Your task to perform on an android device: create a new album in the google photos Image 0: 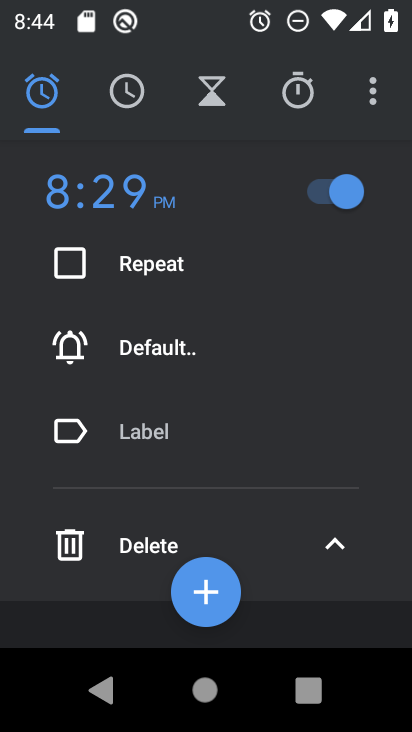
Step 0: click (17, 471)
Your task to perform on an android device: create a new album in the google photos Image 1: 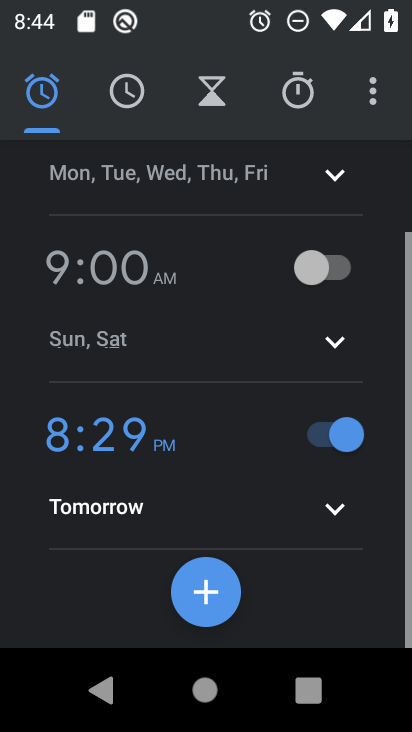
Step 1: press home button
Your task to perform on an android device: create a new album in the google photos Image 2: 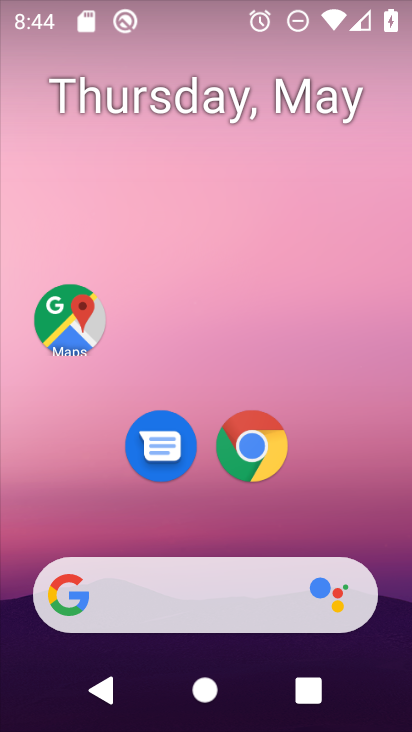
Step 2: drag from (339, 427) to (350, 140)
Your task to perform on an android device: create a new album in the google photos Image 3: 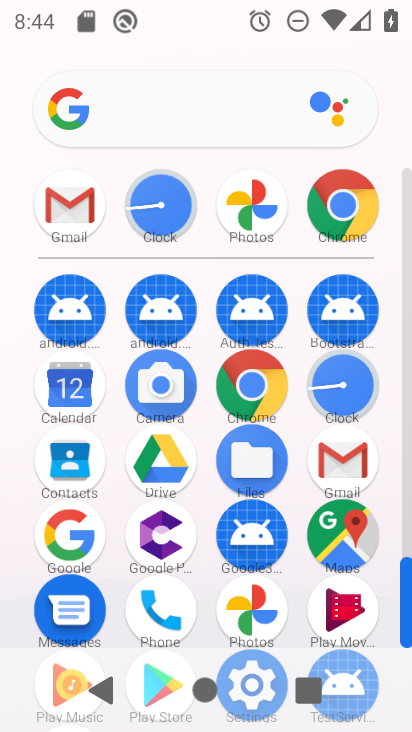
Step 3: click (240, 617)
Your task to perform on an android device: create a new album in the google photos Image 4: 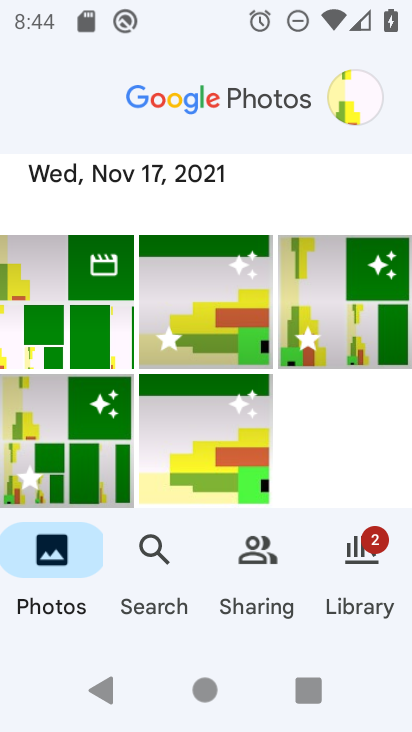
Step 4: click (348, 559)
Your task to perform on an android device: create a new album in the google photos Image 5: 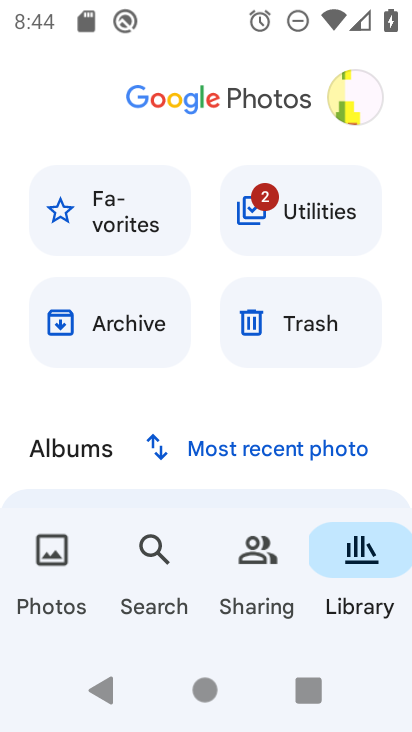
Step 5: drag from (253, 386) to (297, 182)
Your task to perform on an android device: create a new album in the google photos Image 6: 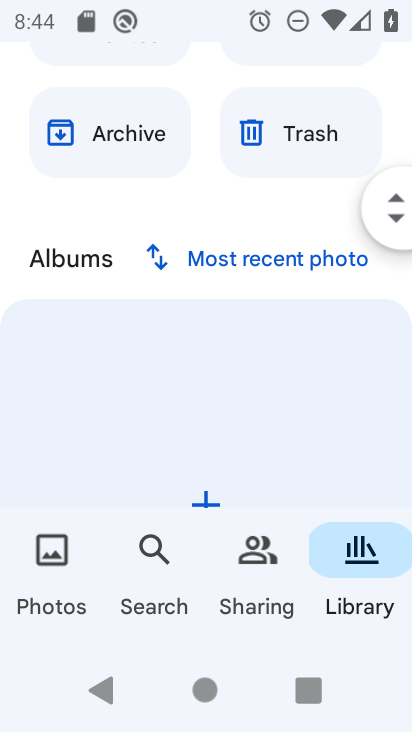
Step 6: click (211, 494)
Your task to perform on an android device: create a new album in the google photos Image 7: 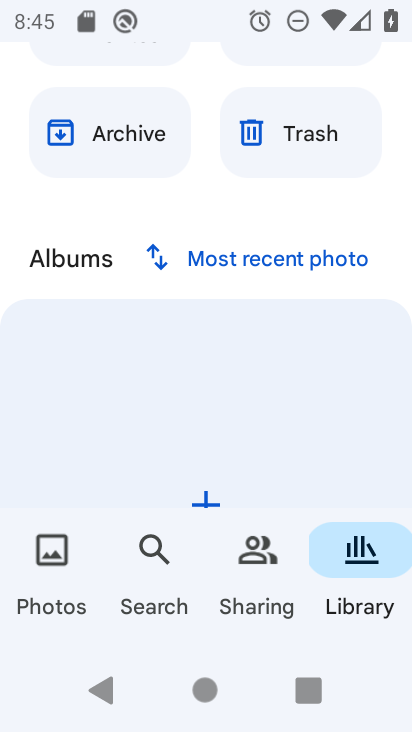
Step 7: drag from (233, 485) to (242, 271)
Your task to perform on an android device: create a new album in the google photos Image 8: 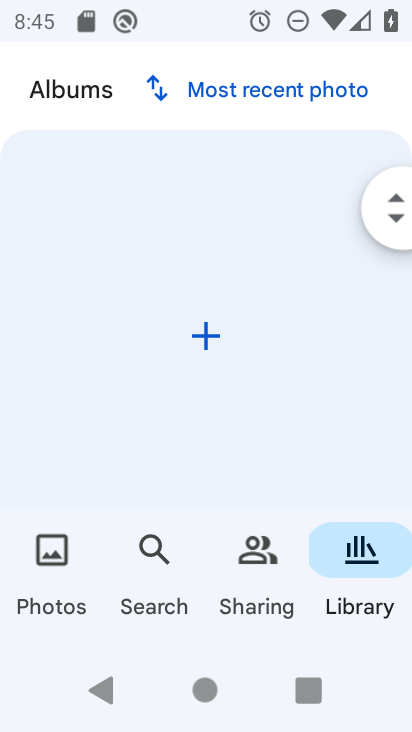
Step 8: click (198, 346)
Your task to perform on an android device: create a new album in the google photos Image 9: 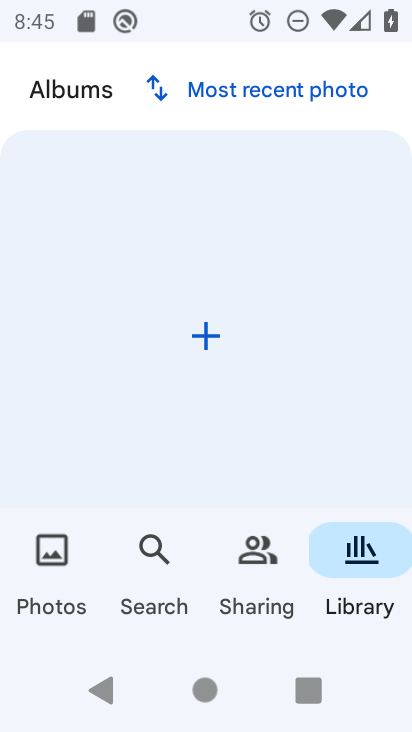
Step 9: click (205, 330)
Your task to perform on an android device: create a new album in the google photos Image 10: 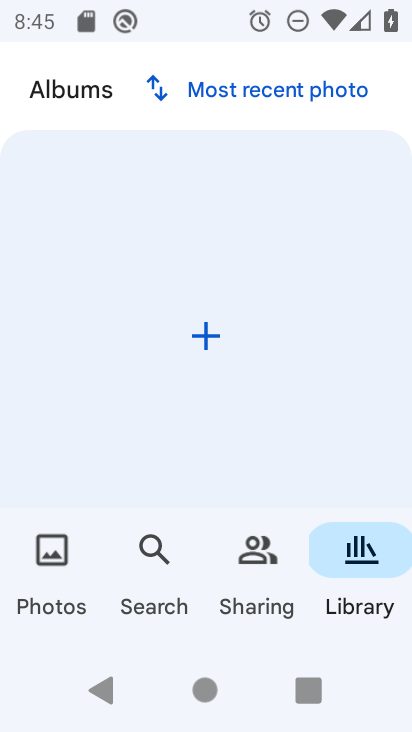
Step 10: click (205, 332)
Your task to perform on an android device: create a new album in the google photos Image 11: 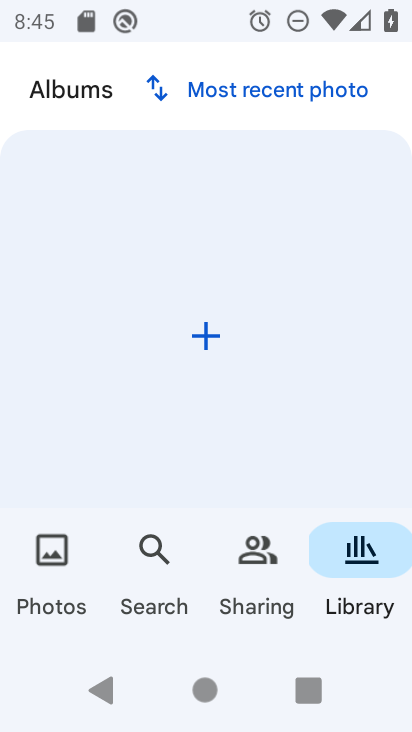
Step 11: task complete